Your task to perform on an android device: turn on data saver in the chrome app Image 0: 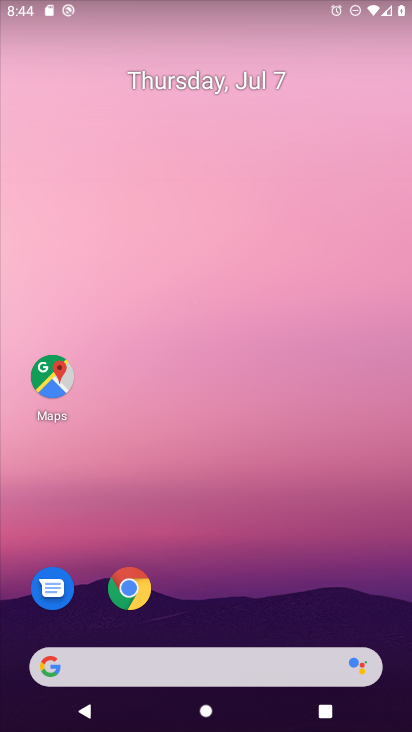
Step 0: drag from (250, 616) to (251, 158)
Your task to perform on an android device: turn on data saver in the chrome app Image 1: 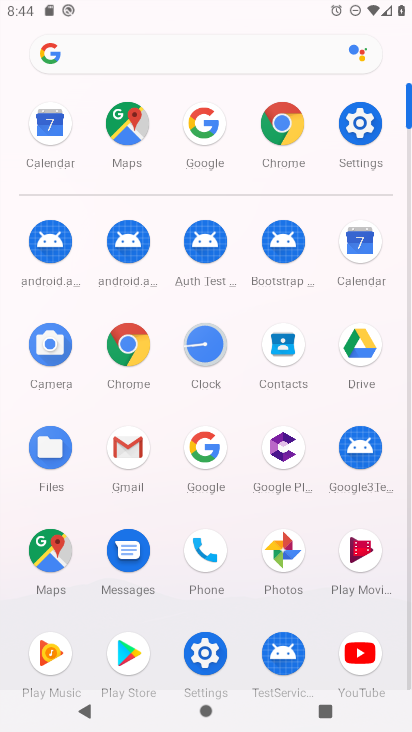
Step 1: click (293, 121)
Your task to perform on an android device: turn on data saver in the chrome app Image 2: 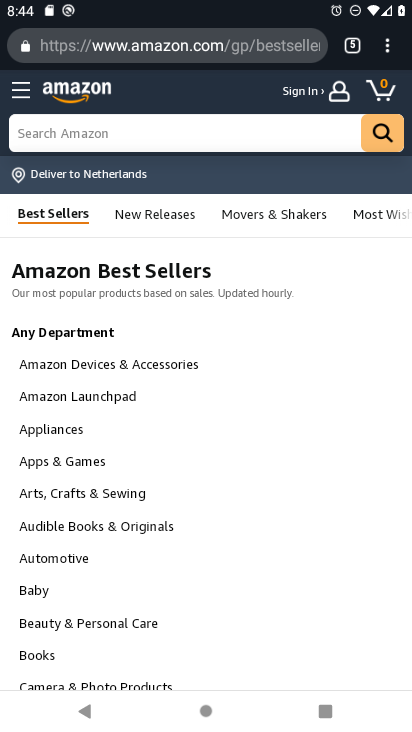
Step 2: click (397, 47)
Your task to perform on an android device: turn on data saver in the chrome app Image 3: 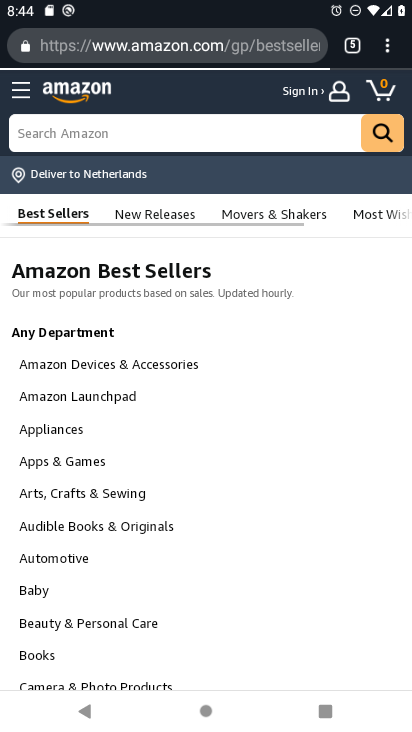
Step 3: click (399, 44)
Your task to perform on an android device: turn on data saver in the chrome app Image 4: 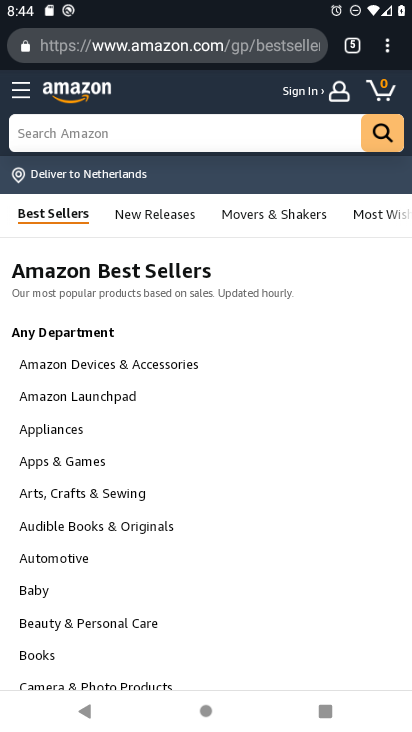
Step 4: click (388, 44)
Your task to perform on an android device: turn on data saver in the chrome app Image 5: 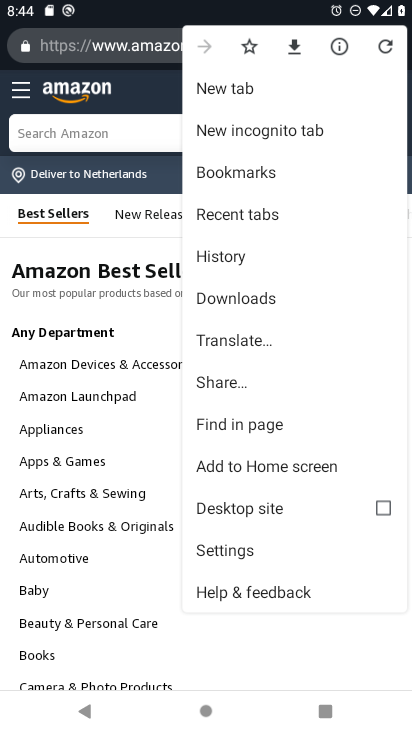
Step 5: click (261, 552)
Your task to perform on an android device: turn on data saver in the chrome app Image 6: 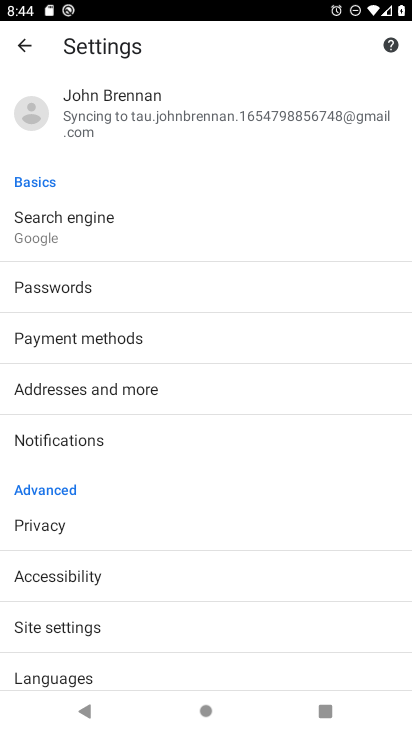
Step 6: drag from (189, 562) to (236, 208)
Your task to perform on an android device: turn on data saver in the chrome app Image 7: 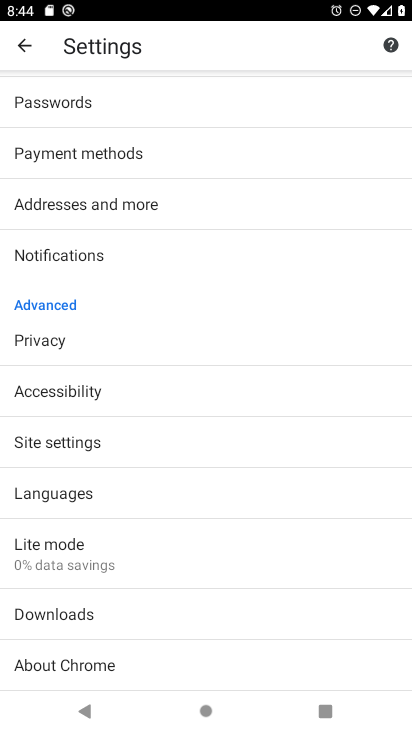
Step 7: click (135, 553)
Your task to perform on an android device: turn on data saver in the chrome app Image 8: 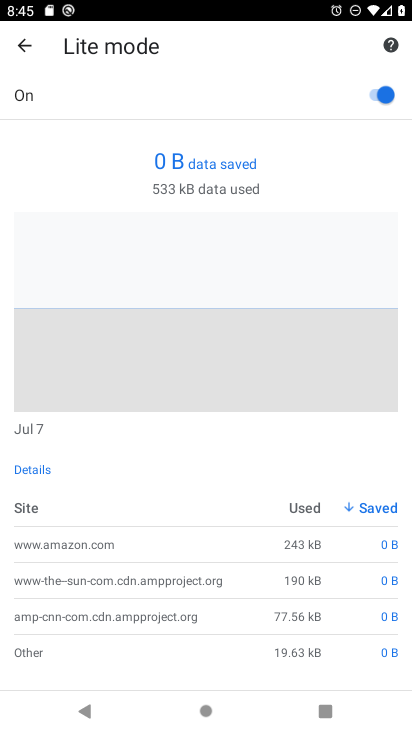
Step 8: task complete